Your task to perform on an android device: check the backup settings in the google photos Image 0: 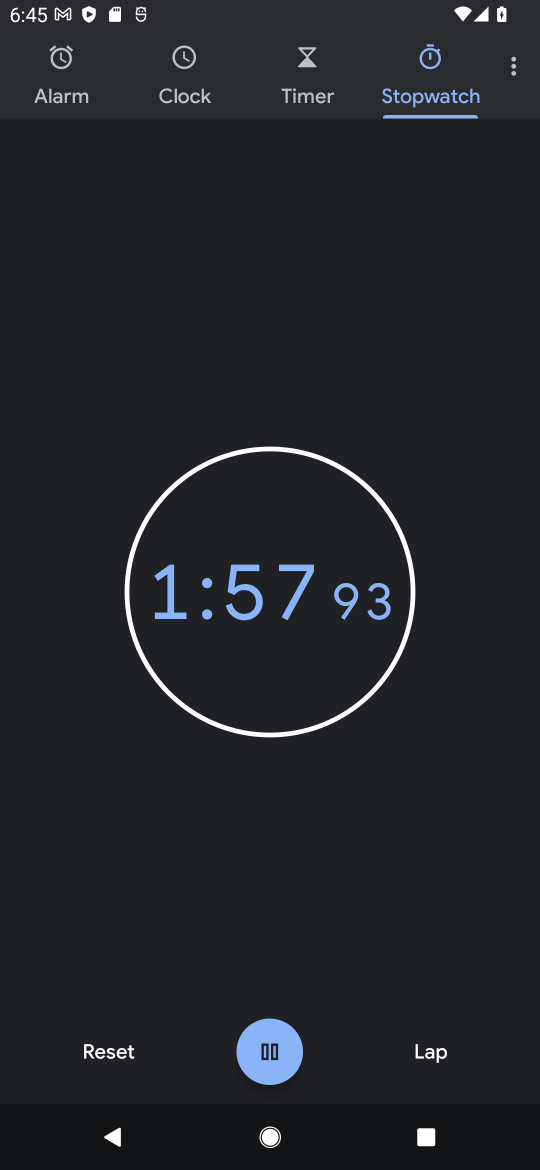
Step 0: press home button
Your task to perform on an android device: check the backup settings in the google photos Image 1: 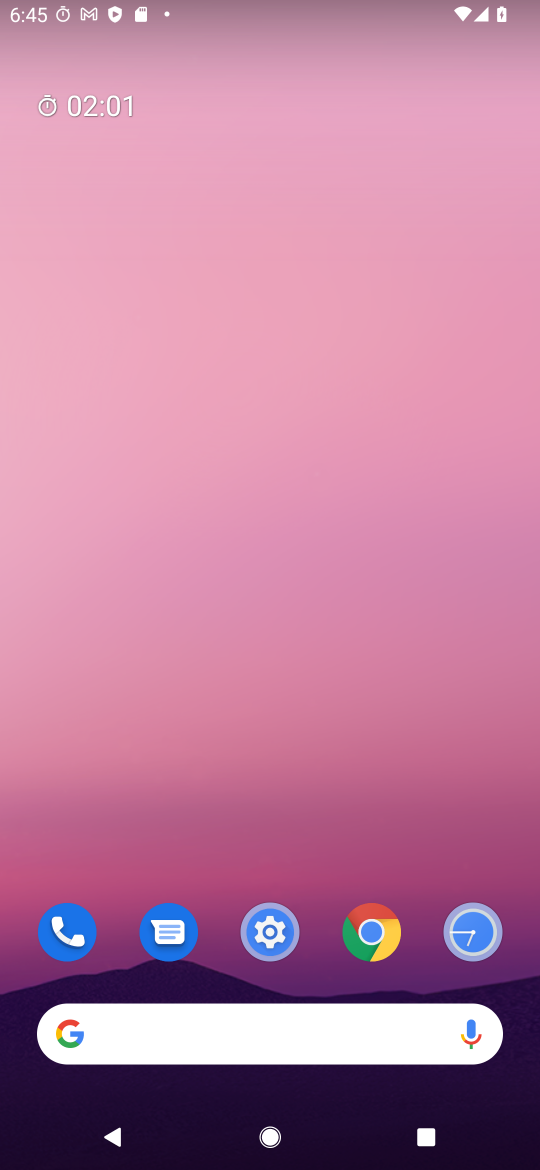
Step 1: drag from (342, 833) to (429, 37)
Your task to perform on an android device: check the backup settings in the google photos Image 2: 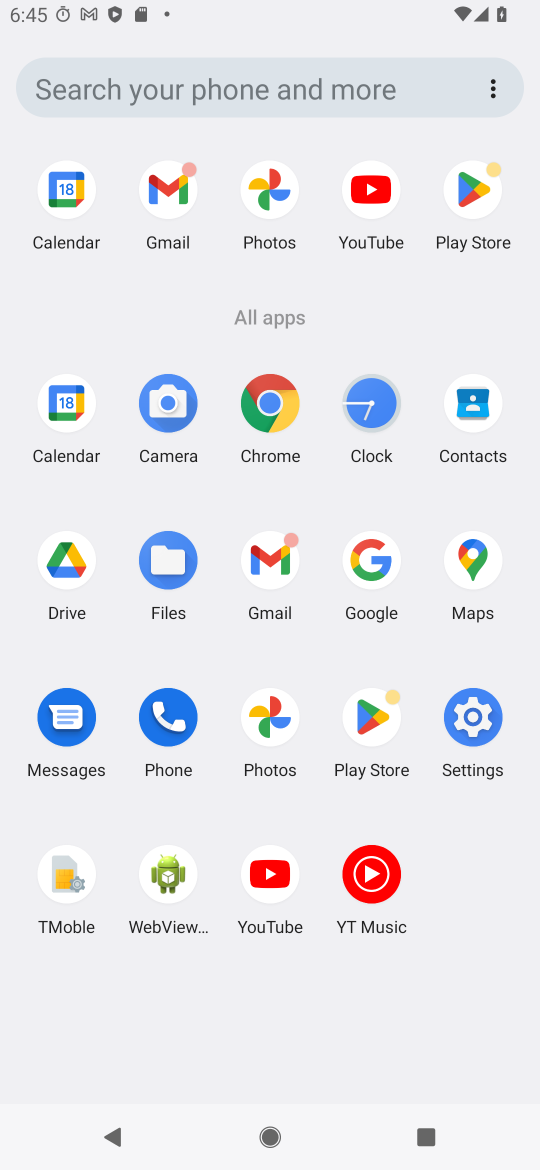
Step 2: click (269, 182)
Your task to perform on an android device: check the backup settings in the google photos Image 3: 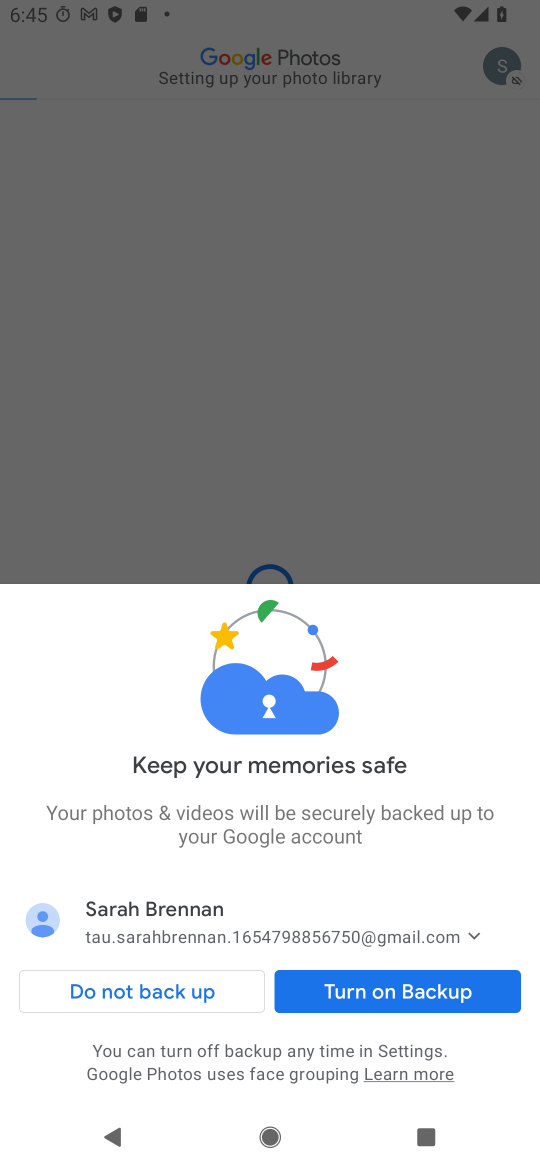
Step 3: click (457, 994)
Your task to perform on an android device: check the backup settings in the google photos Image 4: 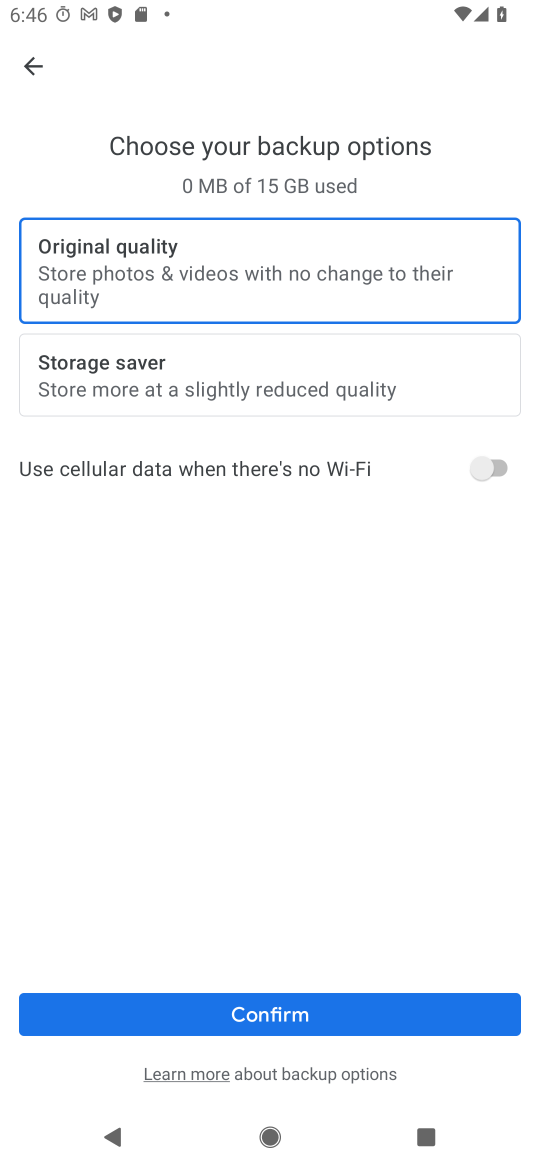
Step 4: click (471, 1017)
Your task to perform on an android device: check the backup settings in the google photos Image 5: 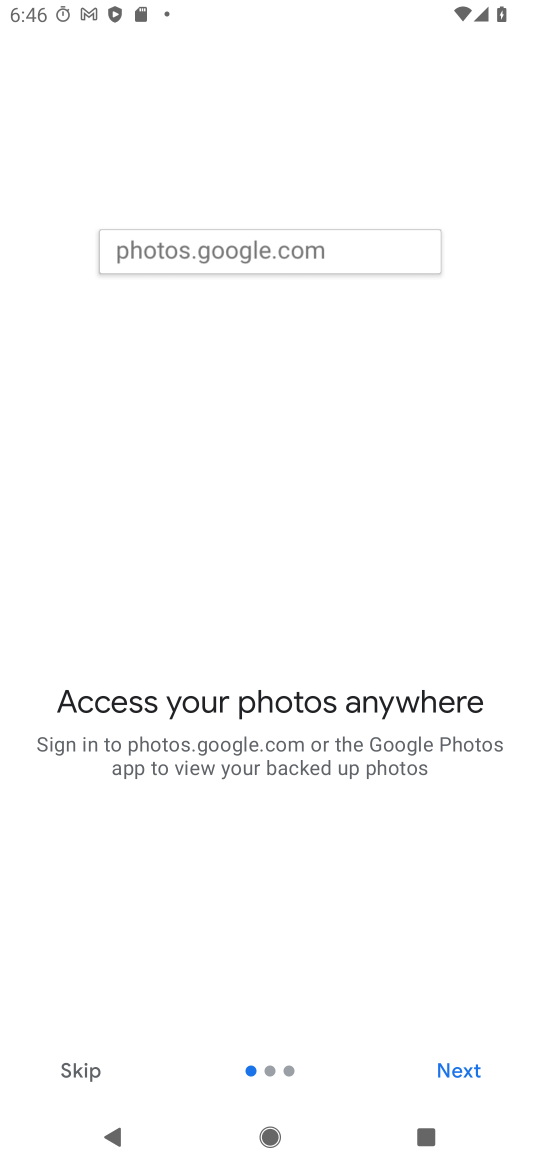
Step 5: click (456, 1068)
Your task to perform on an android device: check the backup settings in the google photos Image 6: 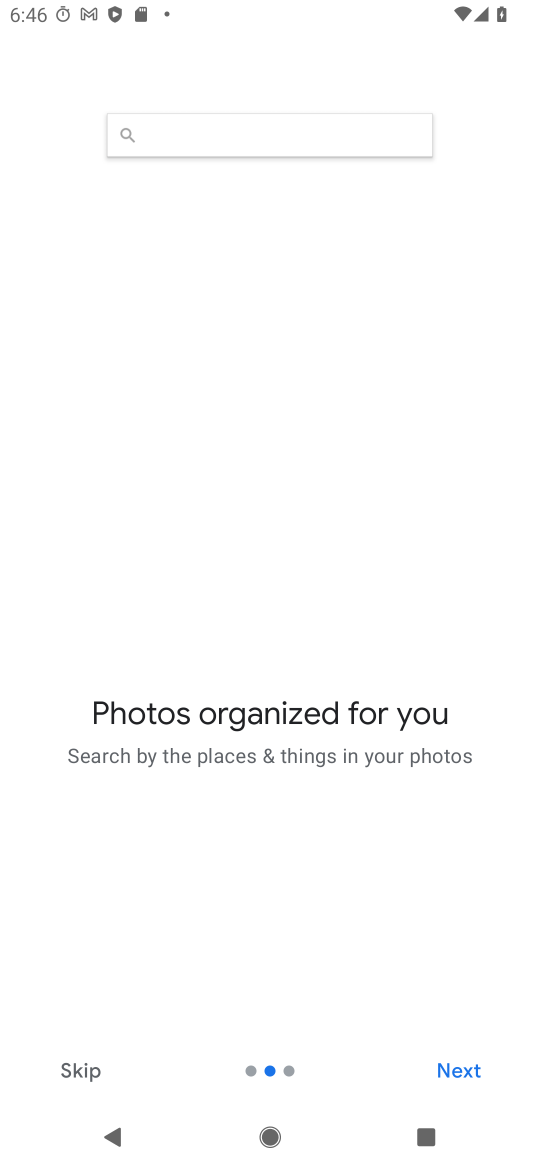
Step 6: click (456, 1068)
Your task to perform on an android device: check the backup settings in the google photos Image 7: 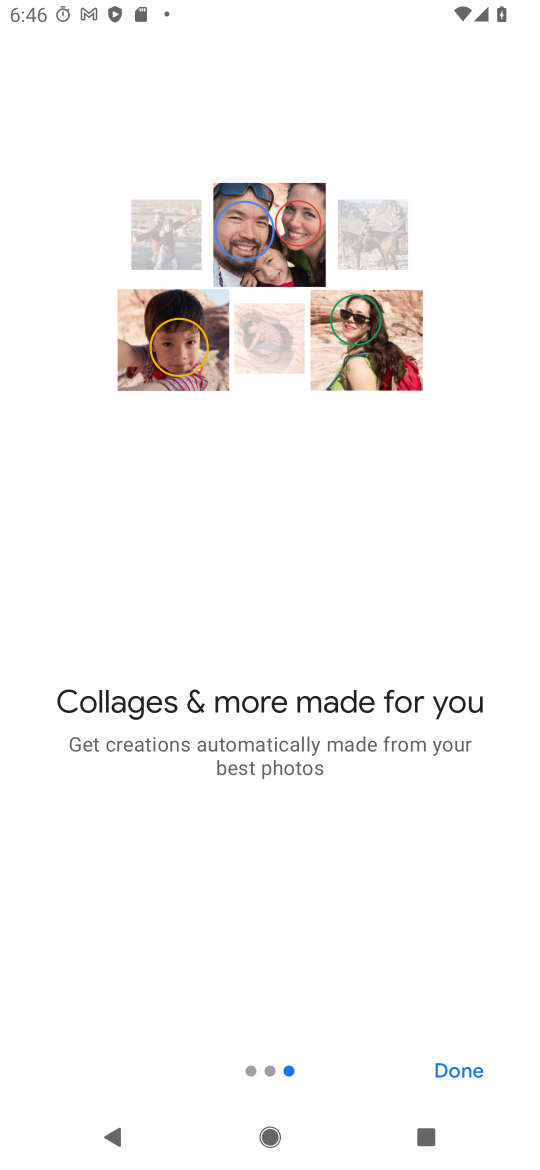
Step 7: click (470, 1060)
Your task to perform on an android device: check the backup settings in the google photos Image 8: 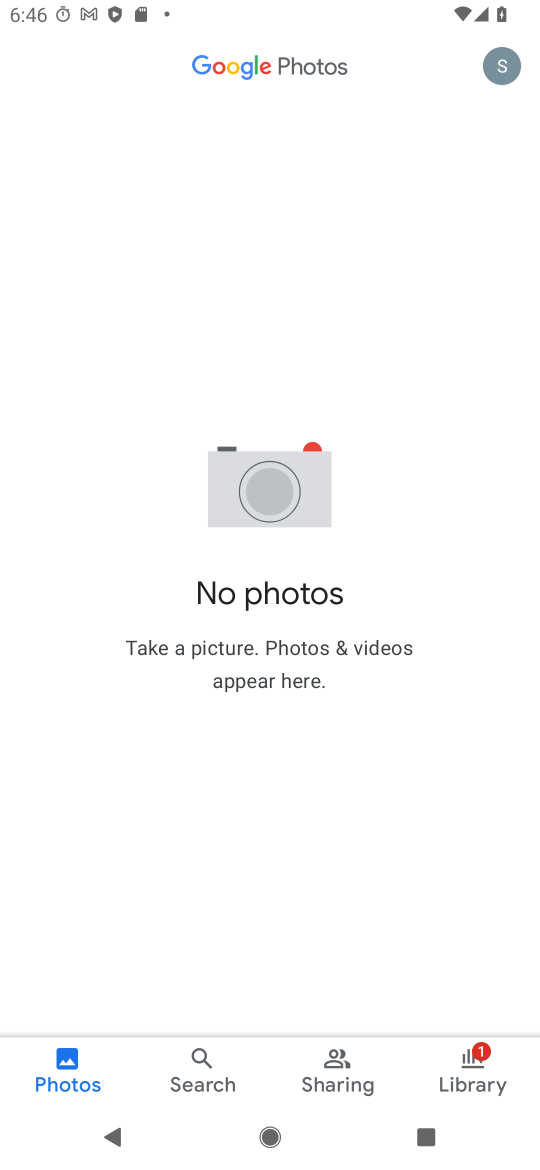
Step 8: click (494, 68)
Your task to perform on an android device: check the backup settings in the google photos Image 9: 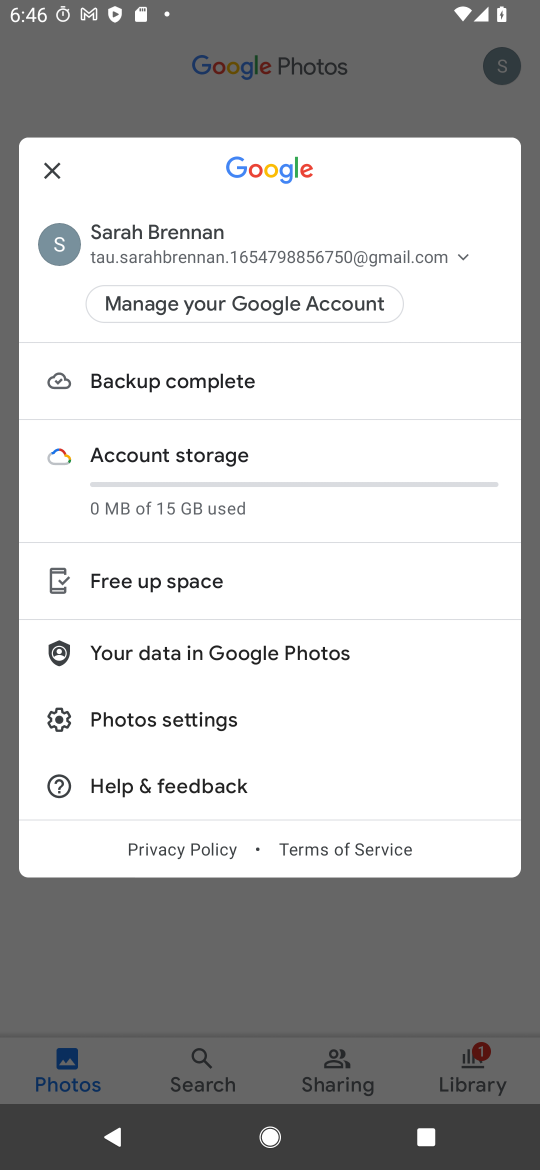
Step 9: click (196, 718)
Your task to perform on an android device: check the backup settings in the google photos Image 10: 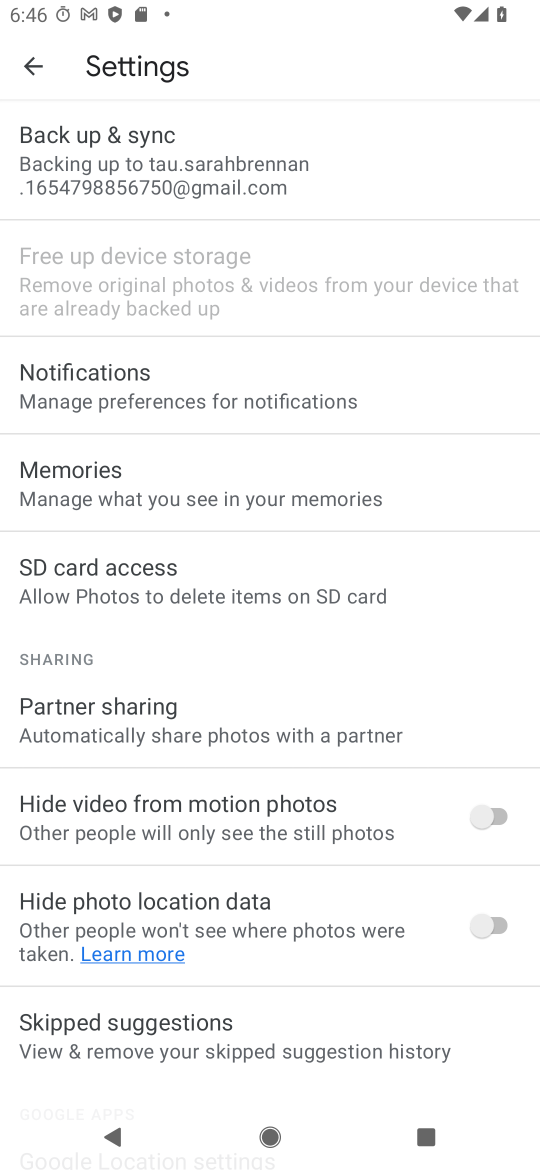
Step 10: click (122, 150)
Your task to perform on an android device: check the backup settings in the google photos Image 11: 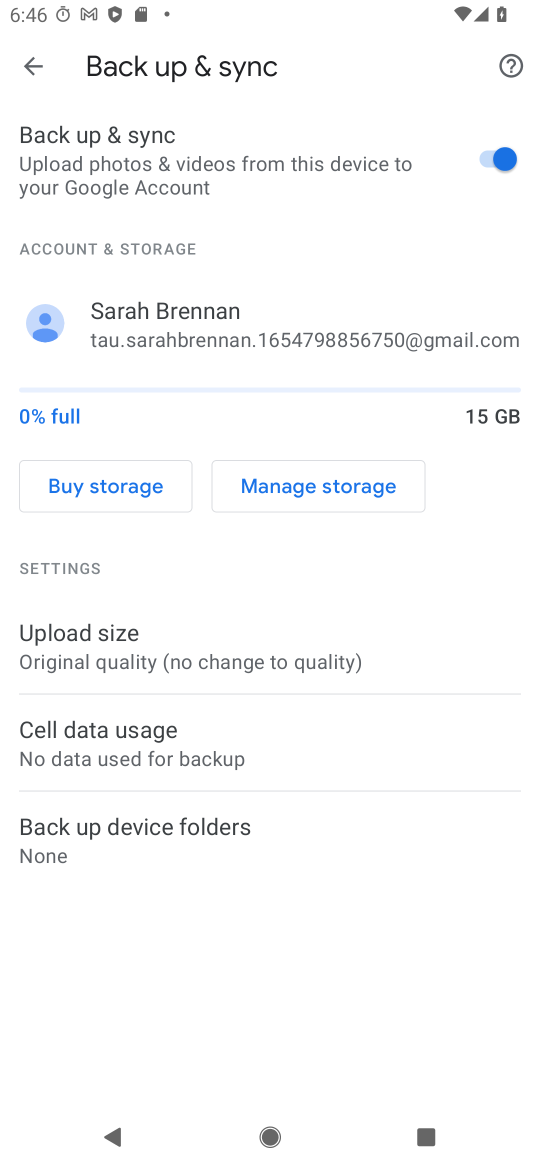
Step 11: task complete